Your task to perform on an android device: What's the weather going to be this weekend? Image 0: 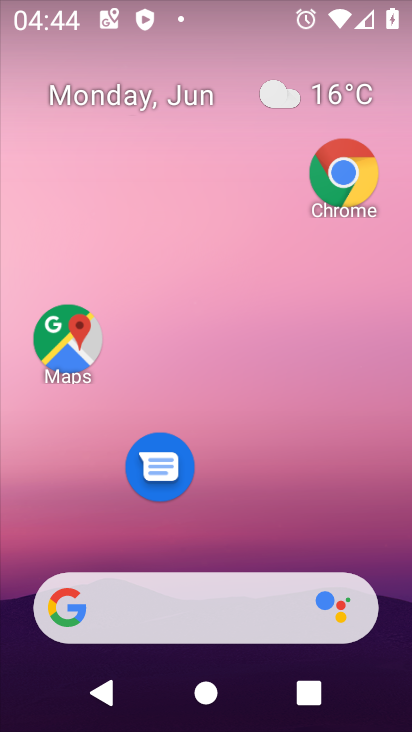
Step 0: drag from (268, 548) to (253, 731)
Your task to perform on an android device: What's the weather going to be this weekend? Image 1: 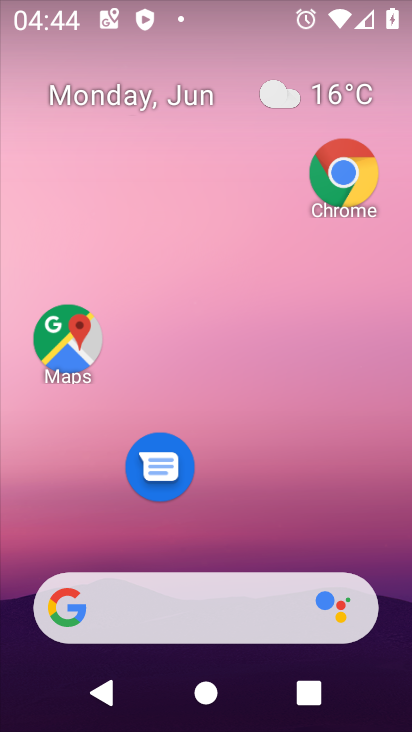
Step 1: click (282, 81)
Your task to perform on an android device: What's the weather going to be this weekend? Image 2: 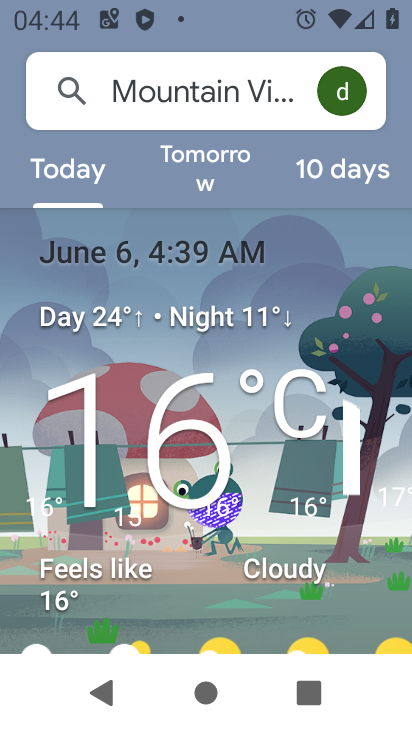
Step 2: click (363, 172)
Your task to perform on an android device: What's the weather going to be this weekend? Image 3: 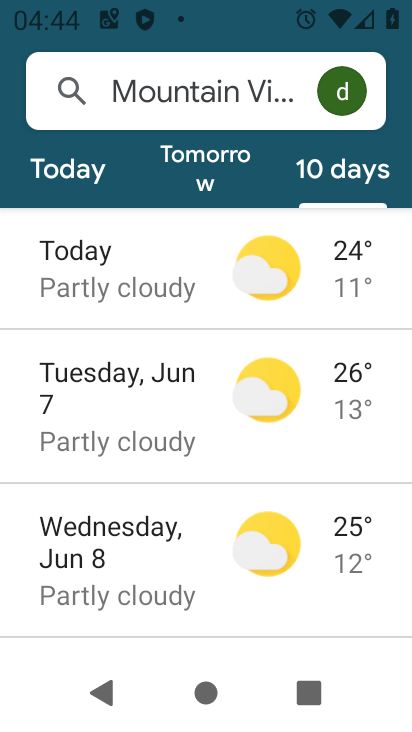
Step 3: task complete